Your task to perform on an android device: check data usage Image 0: 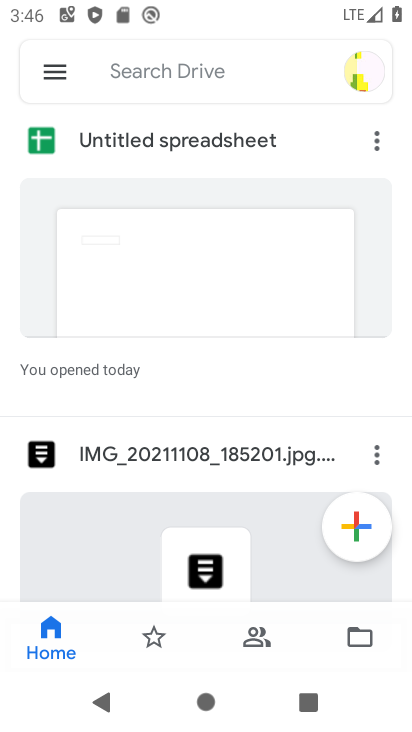
Step 0: press home button
Your task to perform on an android device: check data usage Image 1: 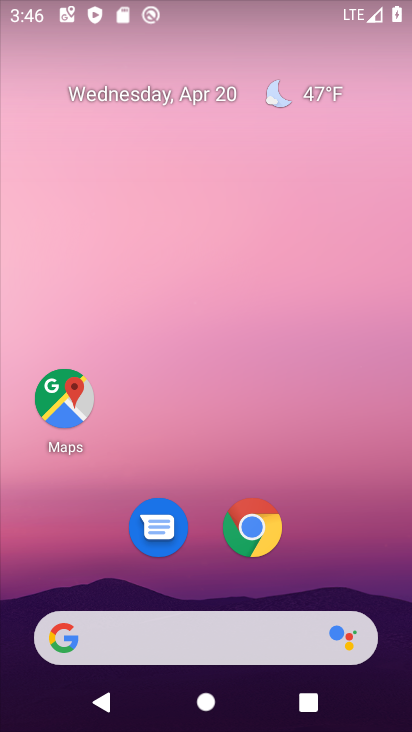
Step 1: drag from (323, 579) to (323, 104)
Your task to perform on an android device: check data usage Image 2: 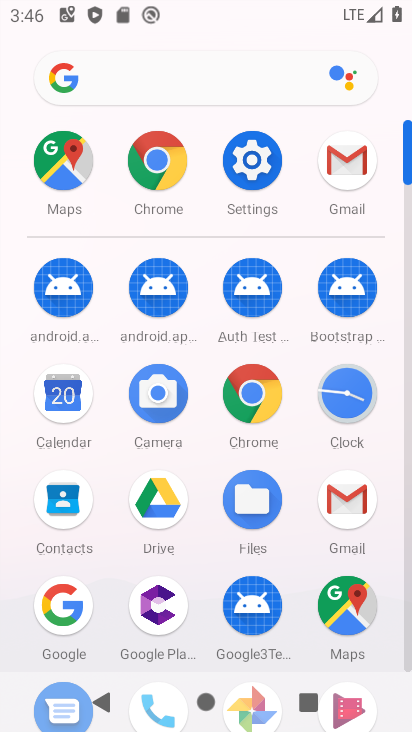
Step 2: click (264, 154)
Your task to perform on an android device: check data usage Image 3: 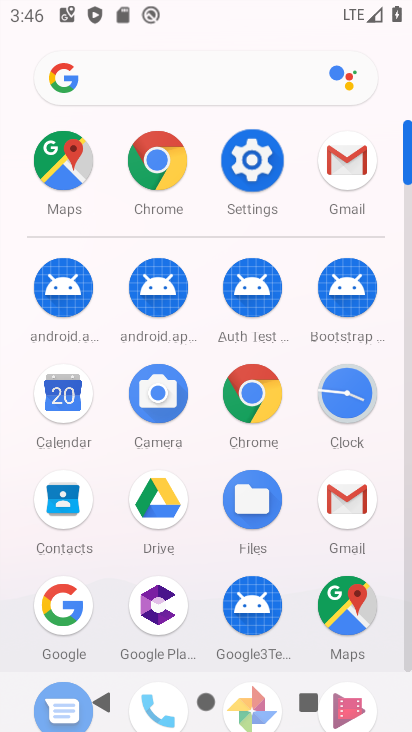
Step 3: click (264, 154)
Your task to perform on an android device: check data usage Image 4: 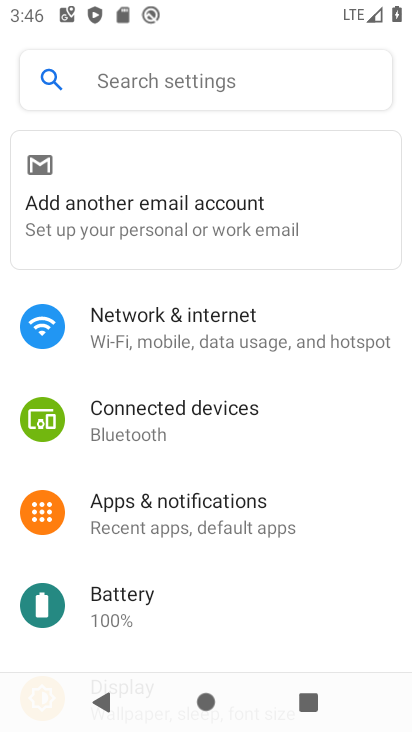
Step 4: click (282, 348)
Your task to perform on an android device: check data usage Image 5: 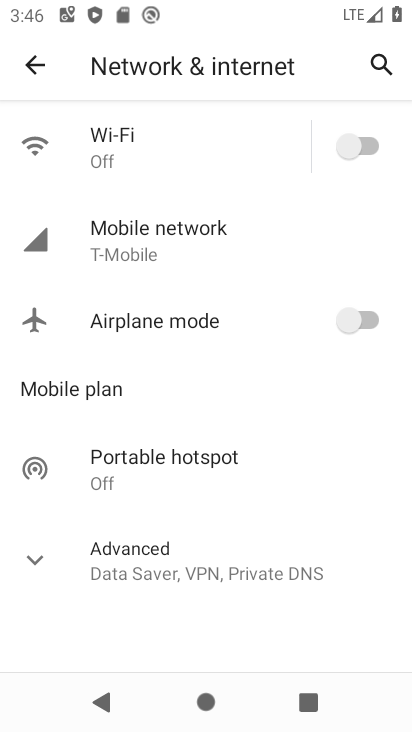
Step 5: drag from (271, 511) to (280, 308)
Your task to perform on an android device: check data usage Image 6: 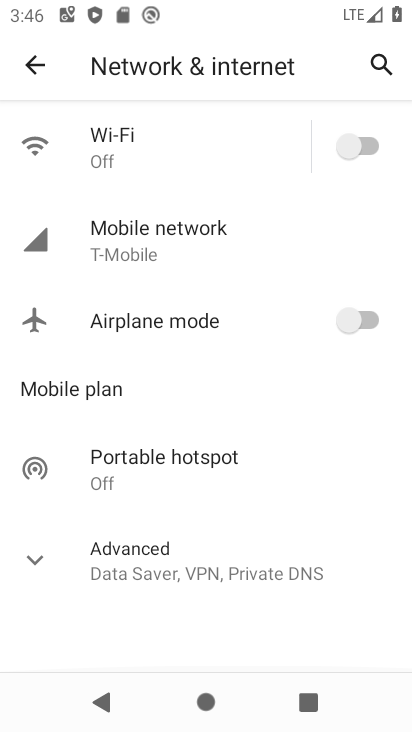
Step 6: click (237, 258)
Your task to perform on an android device: check data usage Image 7: 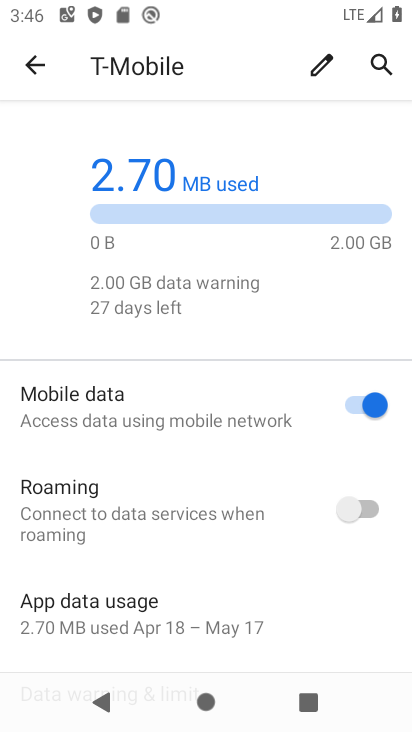
Step 7: click (191, 596)
Your task to perform on an android device: check data usage Image 8: 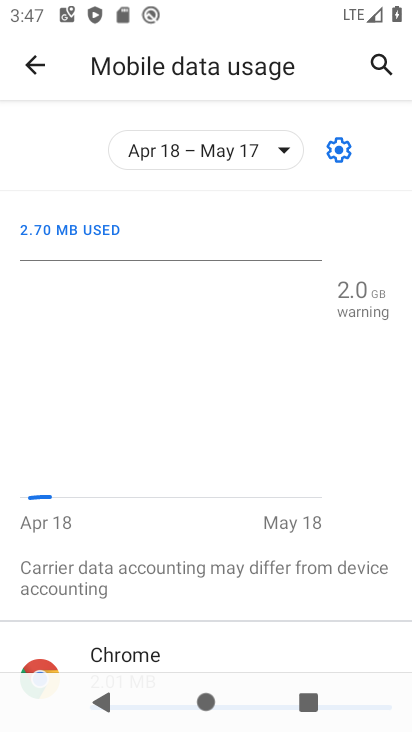
Step 8: task complete